Your task to perform on an android device: Open location settings Image 0: 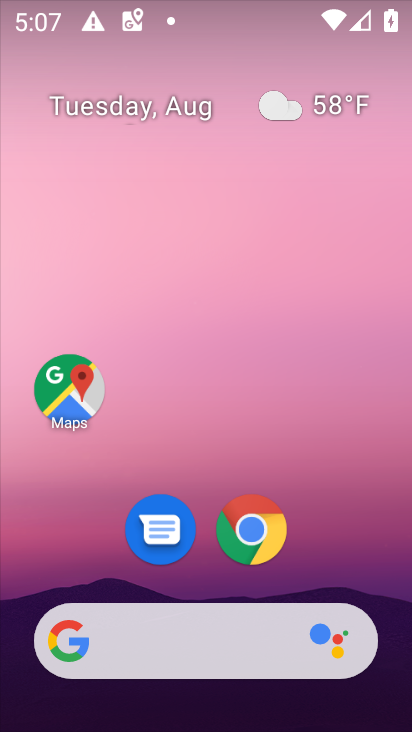
Step 0: drag from (218, 296) to (219, 98)
Your task to perform on an android device: Open location settings Image 1: 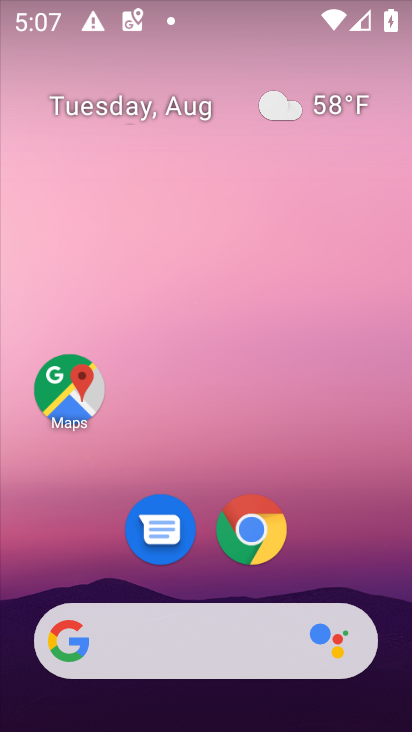
Step 1: drag from (217, 446) to (212, 66)
Your task to perform on an android device: Open location settings Image 2: 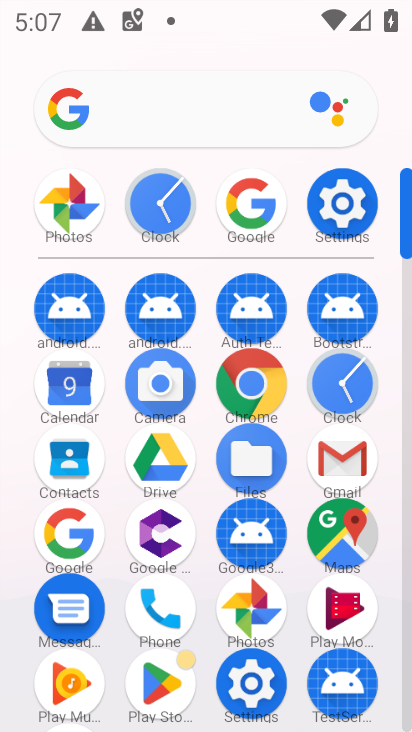
Step 2: click (338, 203)
Your task to perform on an android device: Open location settings Image 3: 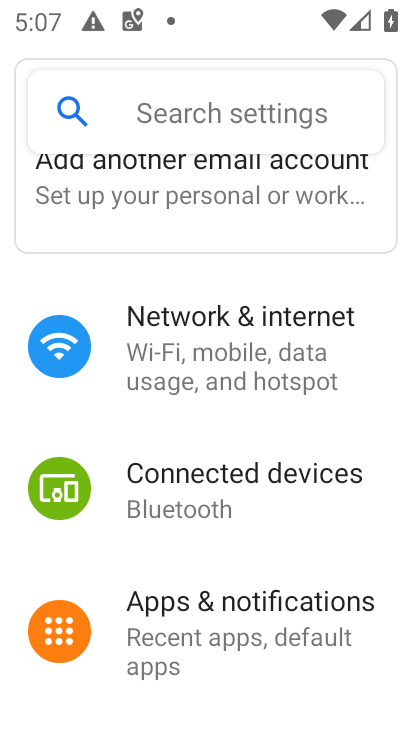
Step 3: drag from (211, 557) to (285, 275)
Your task to perform on an android device: Open location settings Image 4: 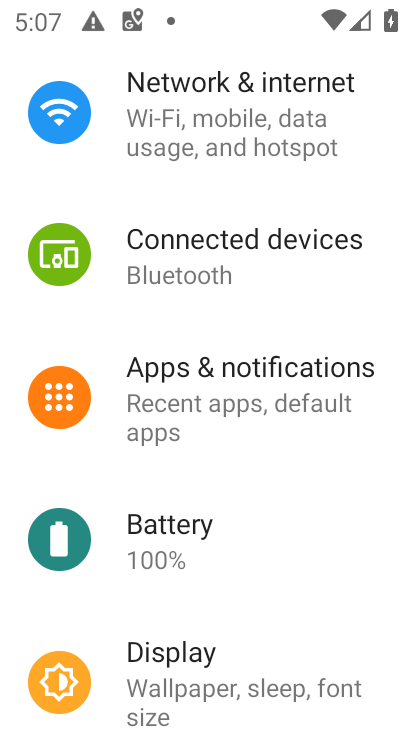
Step 4: drag from (269, 512) to (245, 254)
Your task to perform on an android device: Open location settings Image 5: 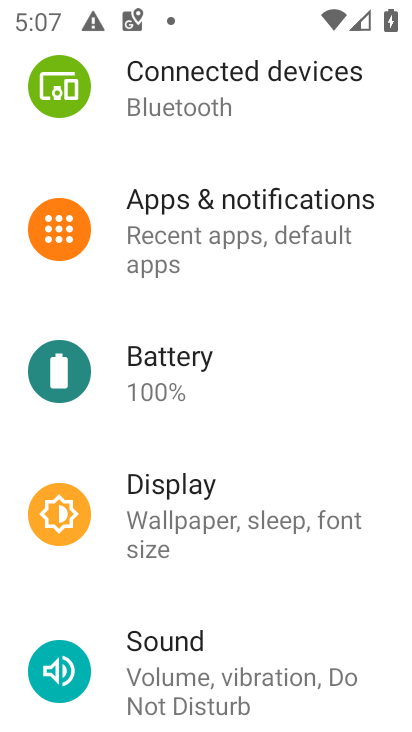
Step 5: drag from (224, 592) to (206, 368)
Your task to perform on an android device: Open location settings Image 6: 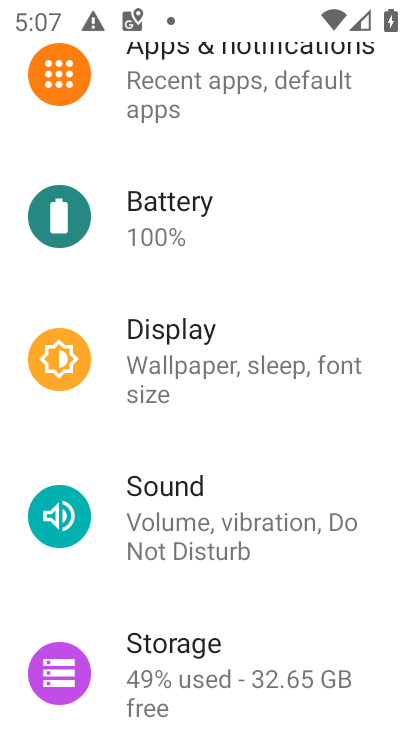
Step 6: drag from (237, 549) to (237, 331)
Your task to perform on an android device: Open location settings Image 7: 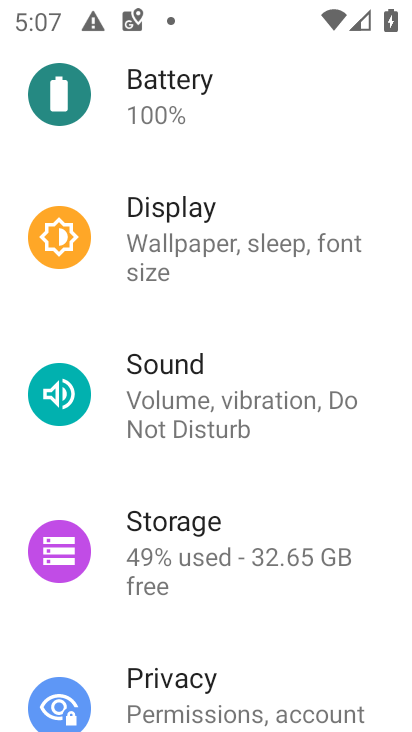
Step 7: drag from (237, 636) to (238, 263)
Your task to perform on an android device: Open location settings Image 8: 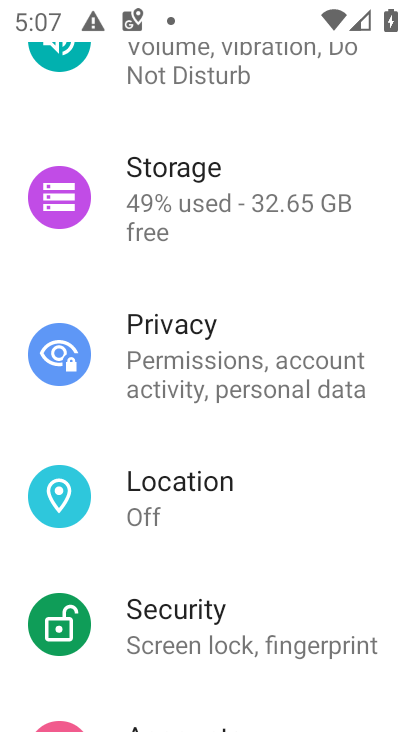
Step 8: click (220, 491)
Your task to perform on an android device: Open location settings Image 9: 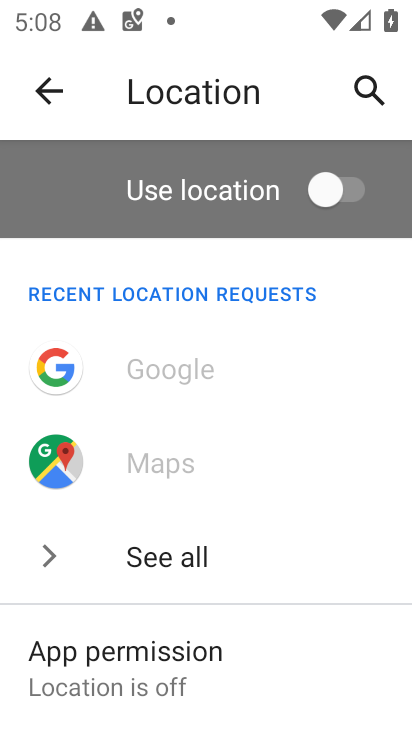
Step 9: task complete